Your task to perform on an android device: Open calendar and show me the first week of next month Image 0: 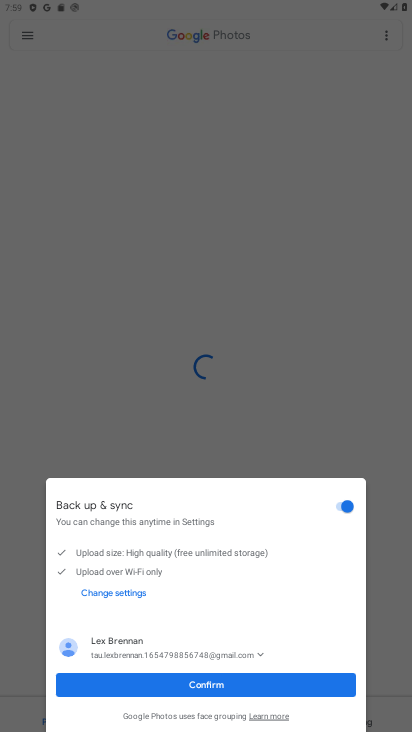
Step 0: click (241, 680)
Your task to perform on an android device: Open calendar and show me the first week of next month Image 1: 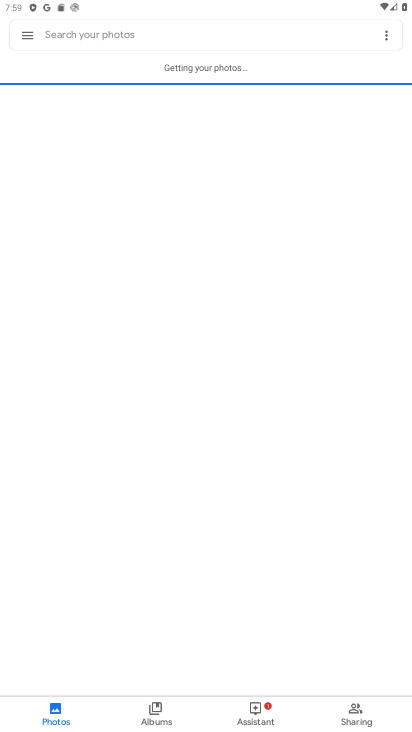
Step 1: press back button
Your task to perform on an android device: Open calendar and show me the first week of next month Image 2: 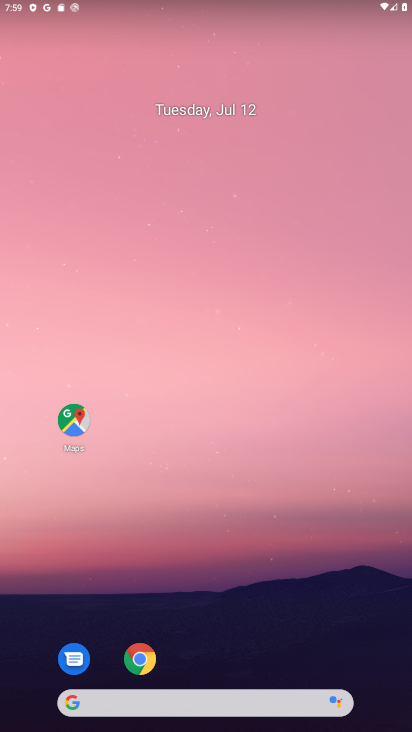
Step 2: drag from (258, 656) to (250, 164)
Your task to perform on an android device: Open calendar and show me the first week of next month Image 3: 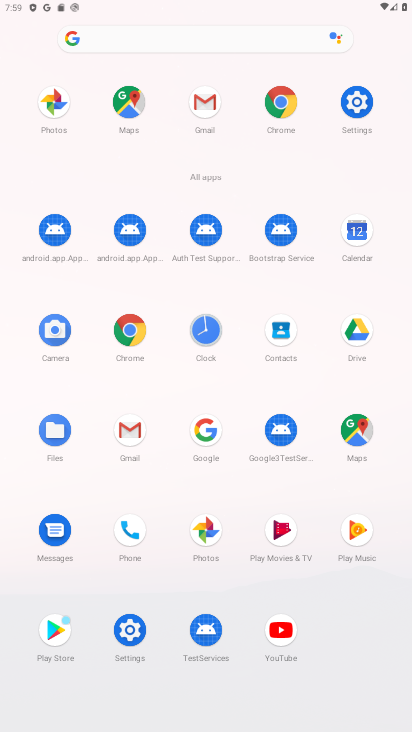
Step 3: click (353, 242)
Your task to perform on an android device: Open calendar and show me the first week of next month Image 4: 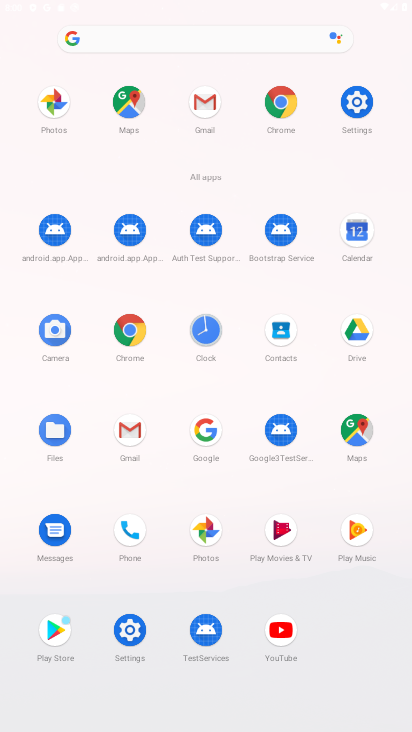
Step 4: click (353, 242)
Your task to perform on an android device: Open calendar and show me the first week of next month Image 5: 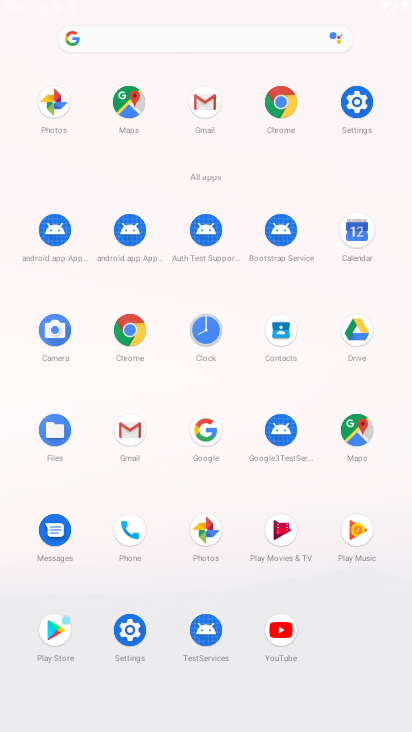
Step 5: click (353, 240)
Your task to perform on an android device: Open calendar and show me the first week of next month Image 6: 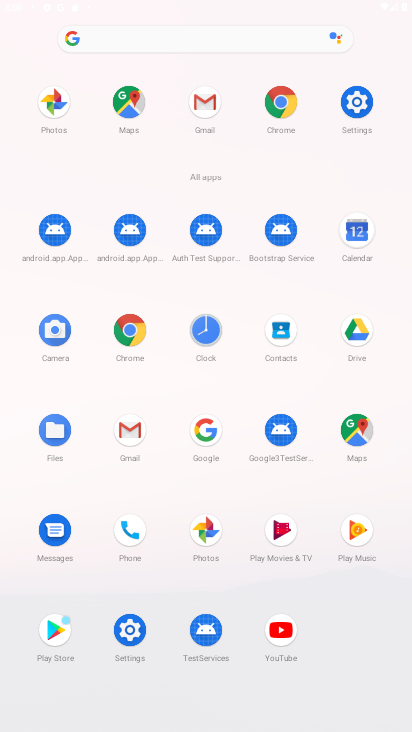
Step 6: click (358, 233)
Your task to perform on an android device: Open calendar and show me the first week of next month Image 7: 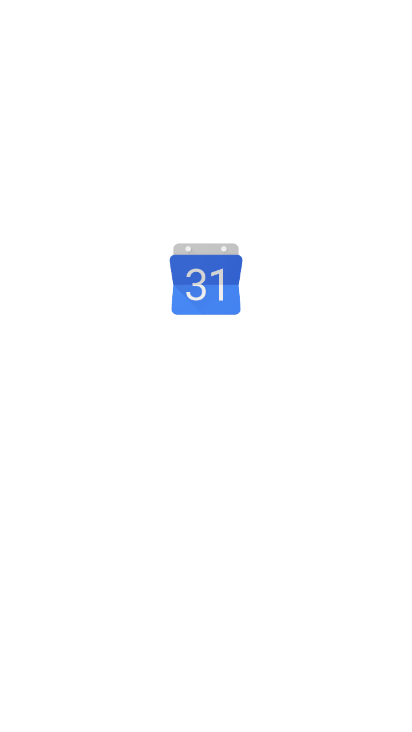
Step 7: click (358, 233)
Your task to perform on an android device: Open calendar and show me the first week of next month Image 8: 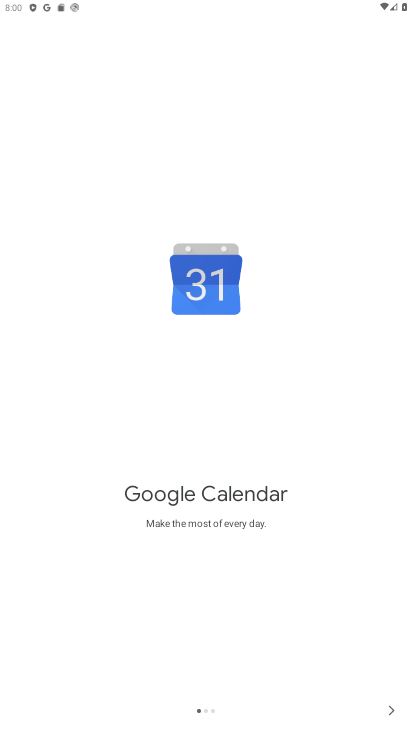
Step 8: click (393, 709)
Your task to perform on an android device: Open calendar and show me the first week of next month Image 9: 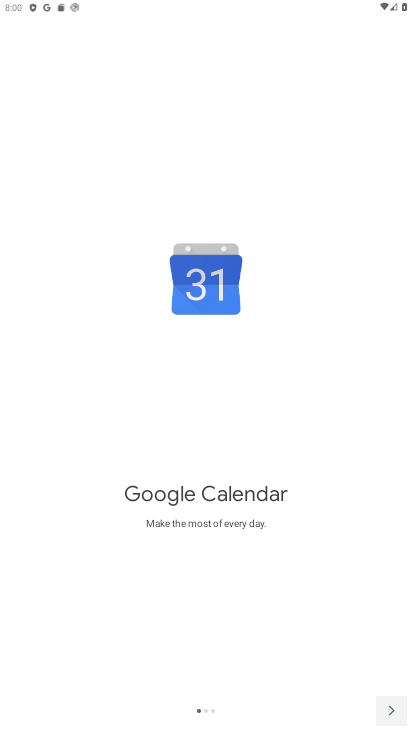
Step 9: click (391, 711)
Your task to perform on an android device: Open calendar and show me the first week of next month Image 10: 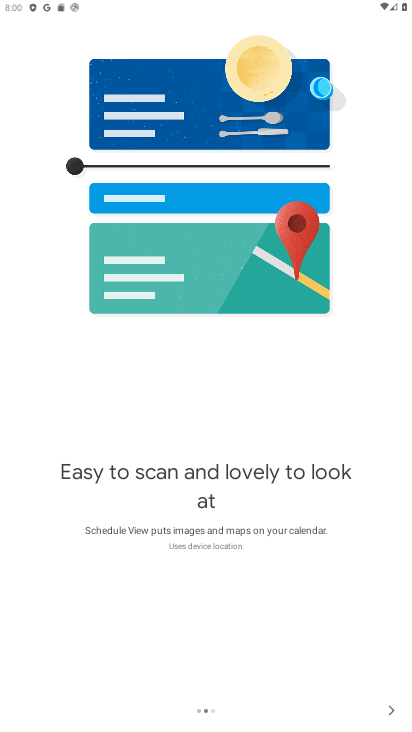
Step 10: click (387, 709)
Your task to perform on an android device: Open calendar and show me the first week of next month Image 11: 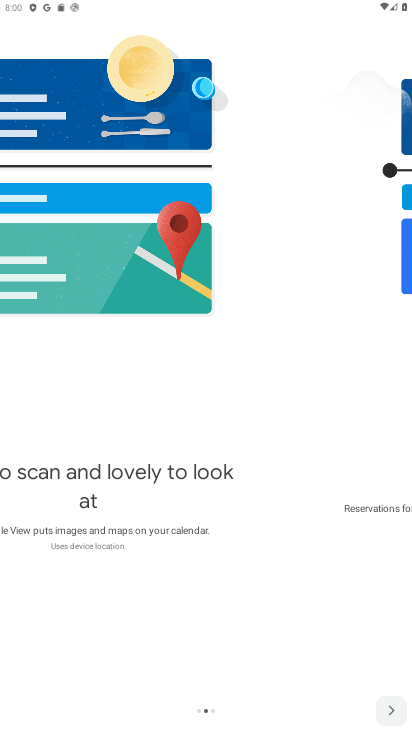
Step 11: click (385, 708)
Your task to perform on an android device: Open calendar and show me the first week of next month Image 12: 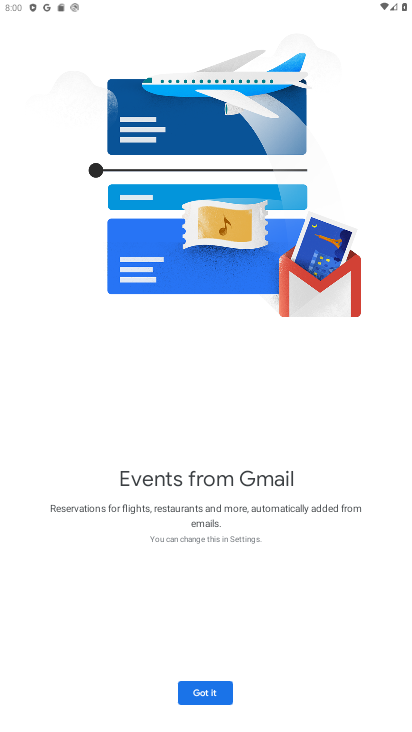
Step 12: click (223, 684)
Your task to perform on an android device: Open calendar and show me the first week of next month Image 13: 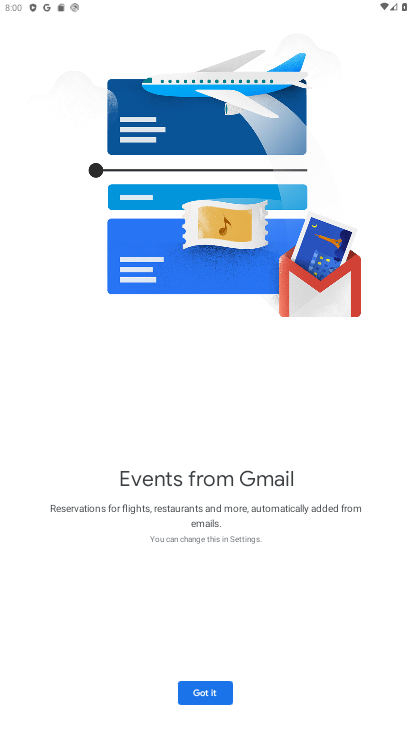
Step 13: click (217, 684)
Your task to perform on an android device: Open calendar and show me the first week of next month Image 14: 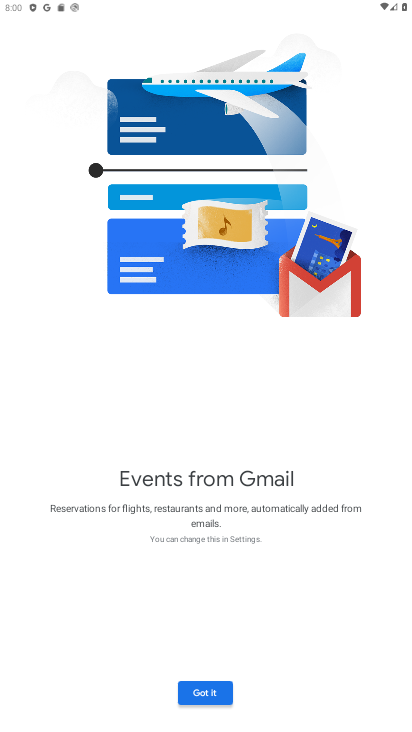
Step 14: click (217, 684)
Your task to perform on an android device: Open calendar and show me the first week of next month Image 15: 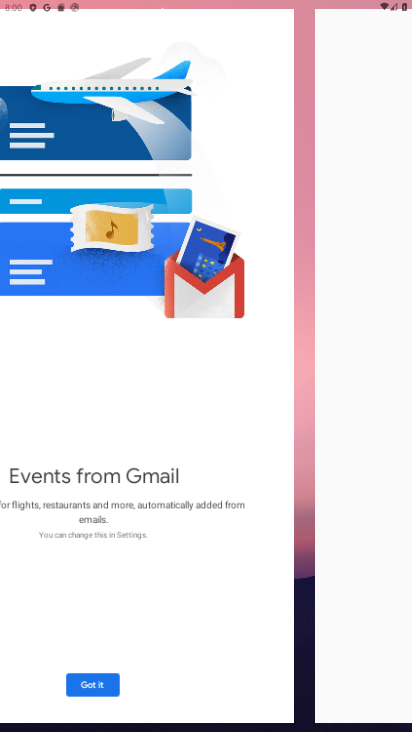
Step 15: click (217, 683)
Your task to perform on an android device: Open calendar and show me the first week of next month Image 16: 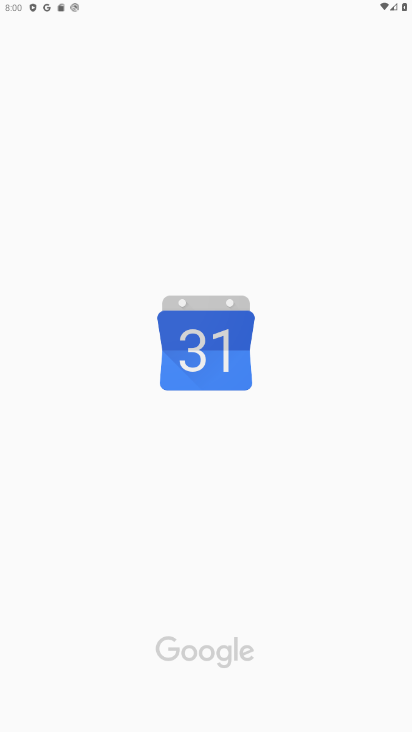
Step 16: click (209, 680)
Your task to perform on an android device: Open calendar and show me the first week of next month Image 17: 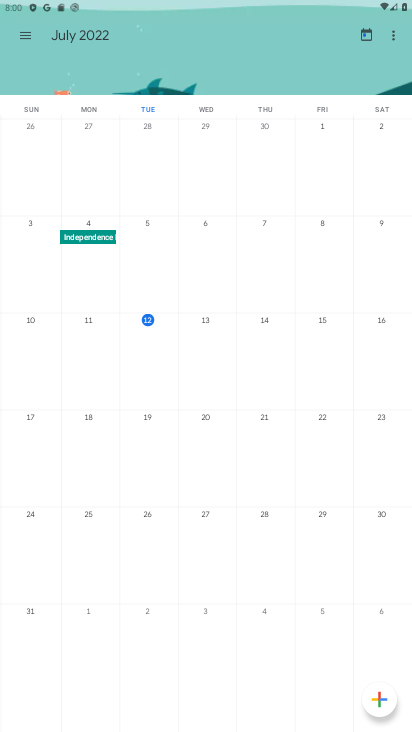
Step 17: drag from (332, 338) to (12, 364)
Your task to perform on an android device: Open calendar and show me the first week of next month Image 18: 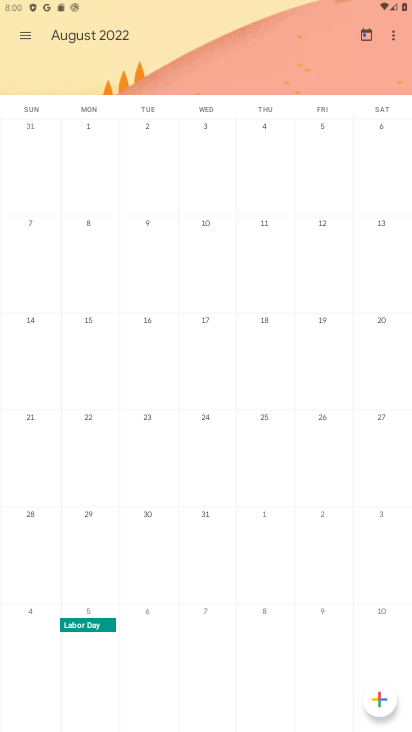
Step 18: click (212, 123)
Your task to perform on an android device: Open calendar and show me the first week of next month Image 19: 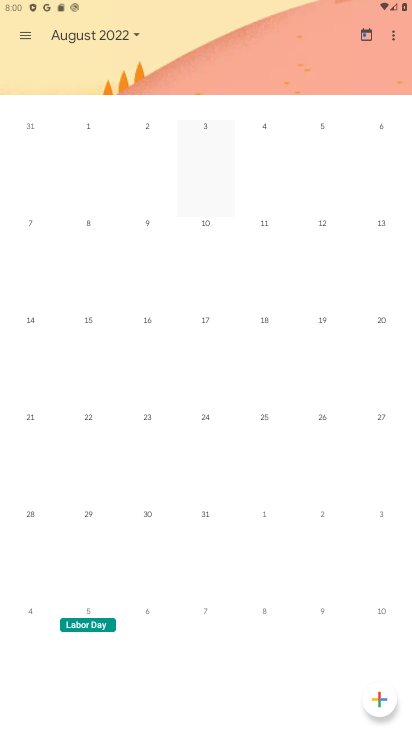
Step 19: click (204, 120)
Your task to perform on an android device: Open calendar and show me the first week of next month Image 20: 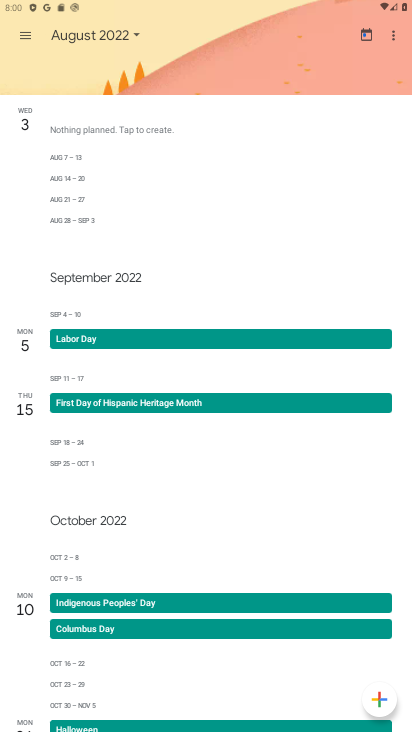
Step 20: click (204, 120)
Your task to perform on an android device: Open calendar and show me the first week of next month Image 21: 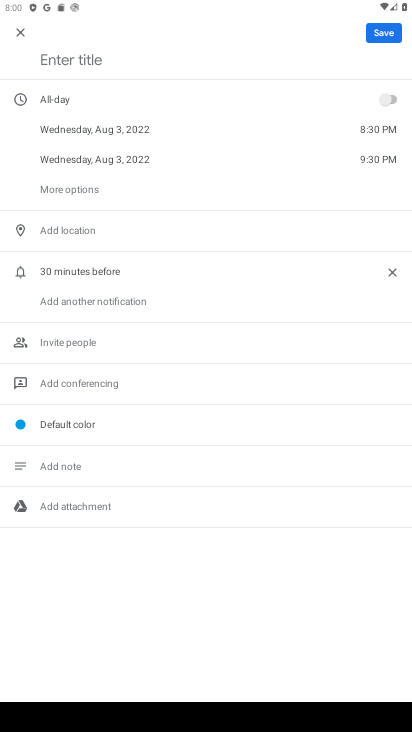
Step 21: click (16, 26)
Your task to perform on an android device: Open calendar and show me the first week of next month Image 22: 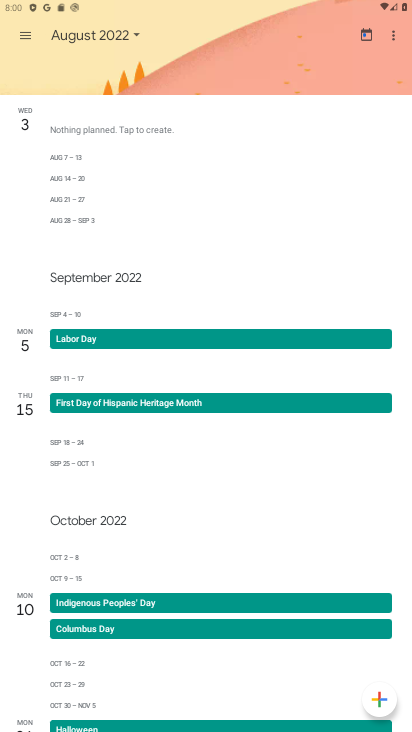
Step 22: task complete